Your task to perform on an android device: Open Amazon Image 0: 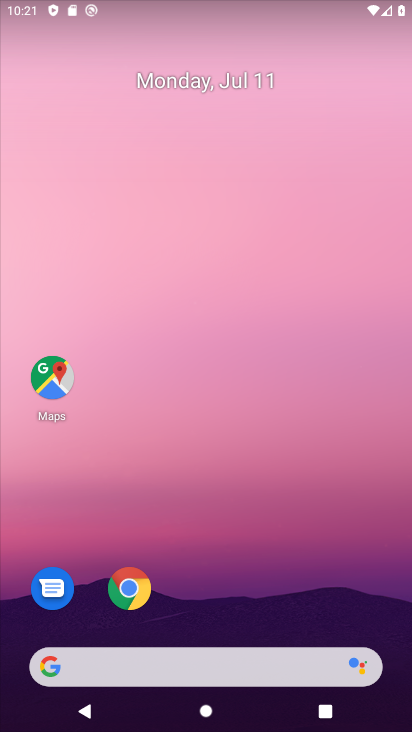
Step 0: click (130, 595)
Your task to perform on an android device: Open Amazon Image 1: 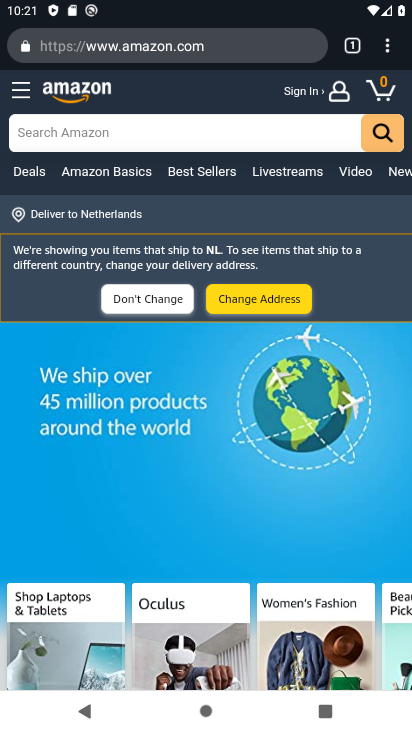
Step 1: task complete